Your task to perform on an android device: turn on sleep mode Image 0: 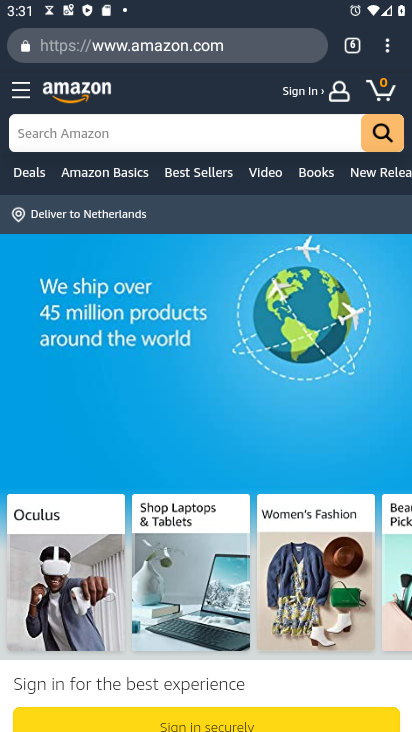
Step 0: press home button
Your task to perform on an android device: turn on sleep mode Image 1: 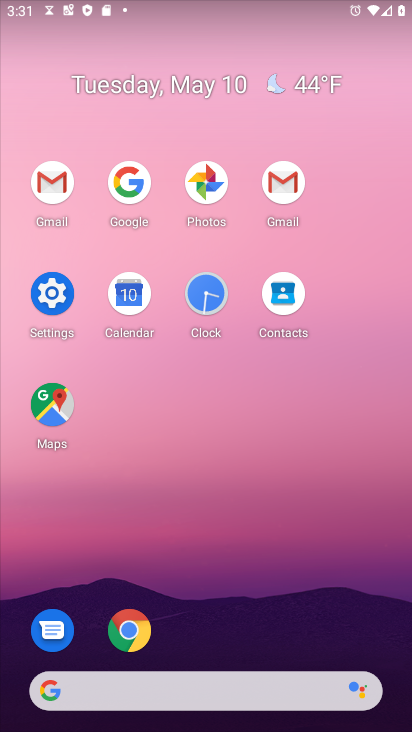
Step 1: click (62, 294)
Your task to perform on an android device: turn on sleep mode Image 2: 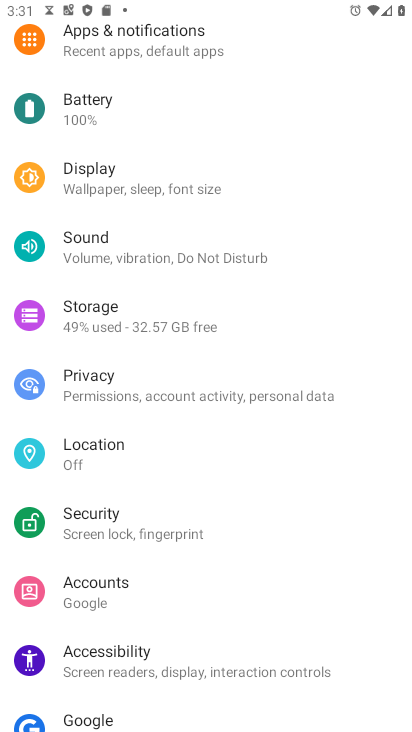
Step 2: click (172, 193)
Your task to perform on an android device: turn on sleep mode Image 3: 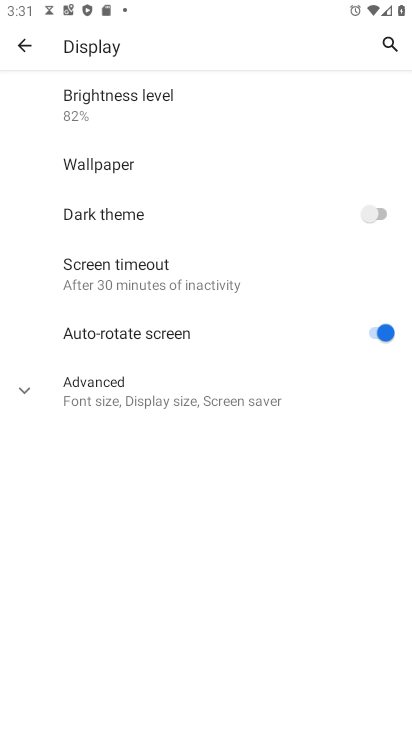
Step 3: click (200, 267)
Your task to perform on an android device: turn on sleep mode Image 4: 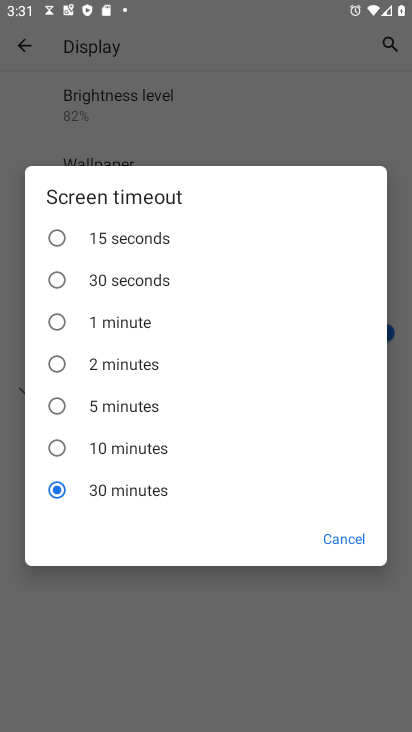
Step 4: task complete